Your task to perform on an android device: toggle notification dots Image 0: 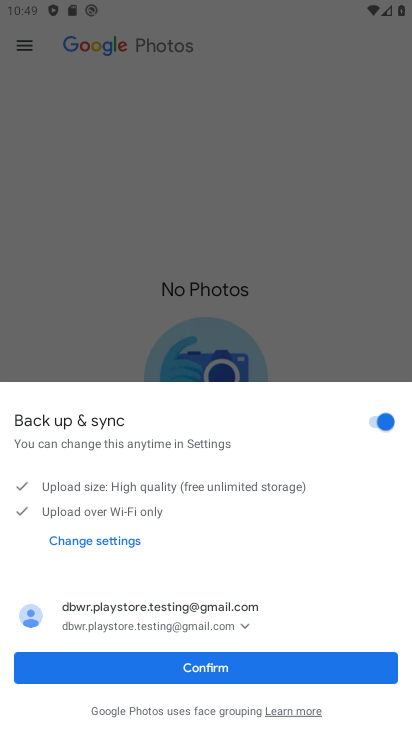
Step 0: press home button
Your task to perform on an android device: toggle notification dots Image 1: 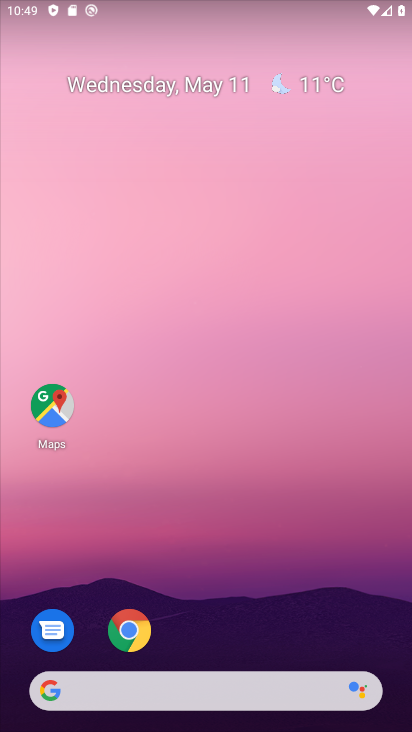
Step 1: drag from (220, 656) to (252, 332)
Your task to perform on an android device: toggle notification dots Image 2: 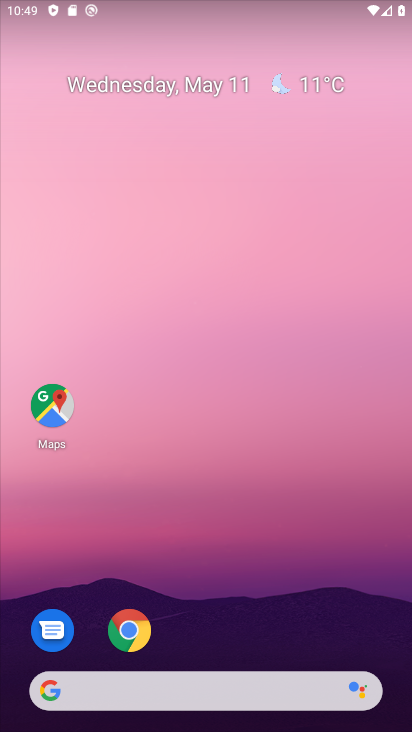
Step 2: drag from (229, 630) to (242, 312)
Your task to perform on an android device: toggle notification dots Image 3: 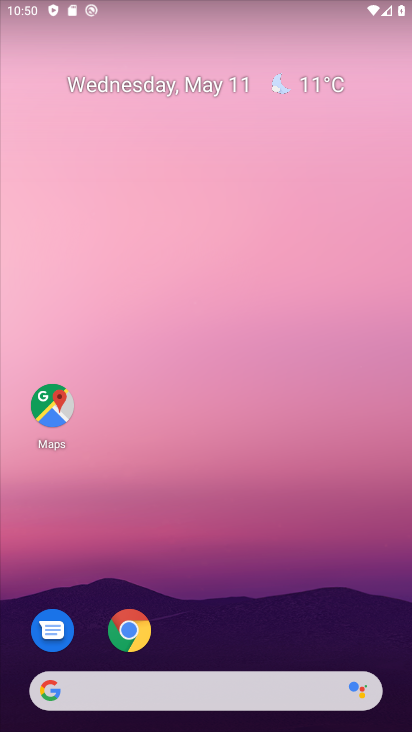
Step 3: drag from (223, 658) to (238, 259)
Your task to perform on an android device: toggle notification dots Image 4: 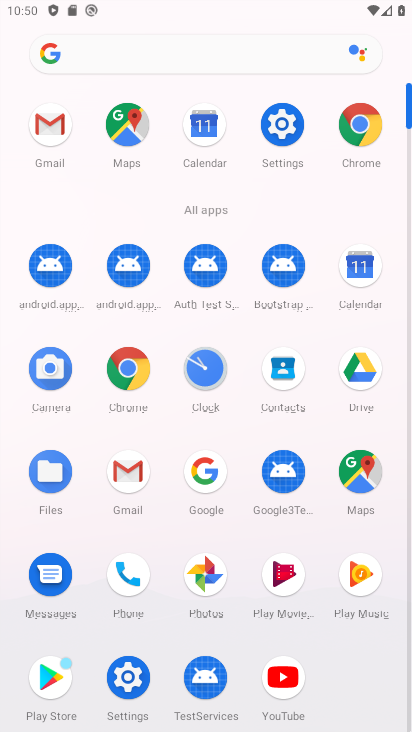
Step 4: click (284, 142)
Your task to perform on an android device: toggle notification dots Image 5: 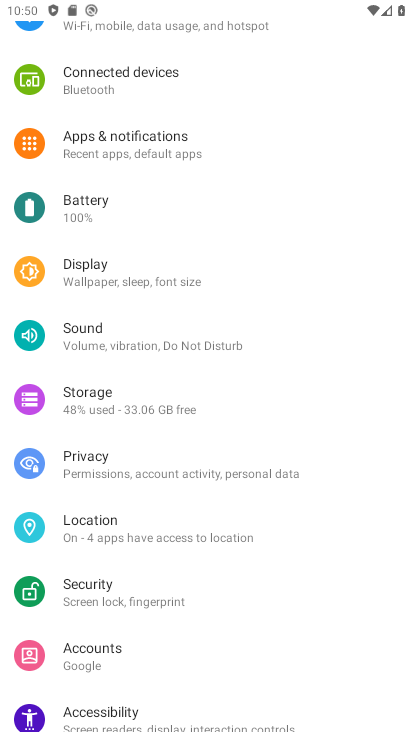
Step 5: click (171, 159)
Your task to perform on an android device: toggle notification dots Image 6: 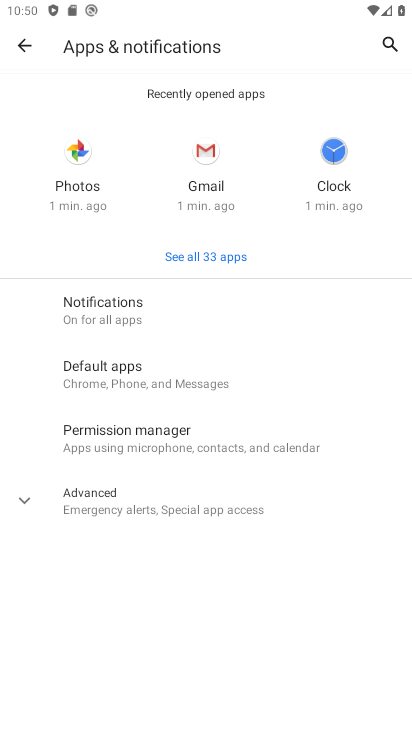
Step 6: click (130, 307)
Your task to perform on an android device: toggle notification dots Image 7: 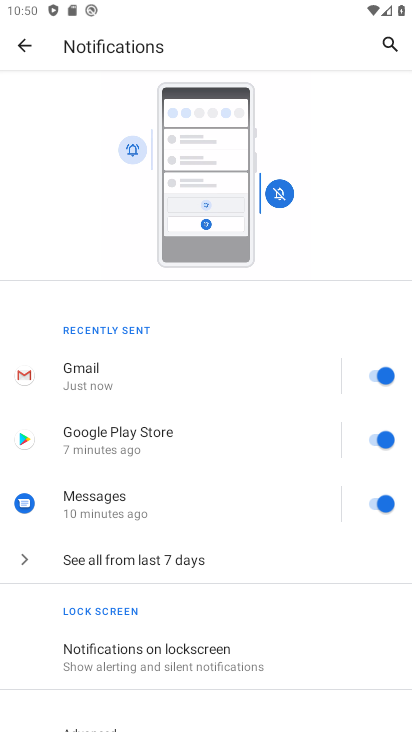
Step 7: drag from (164, 642) to (168, 267)
Your task to perform on an android device: toggle notification dots Image 8: 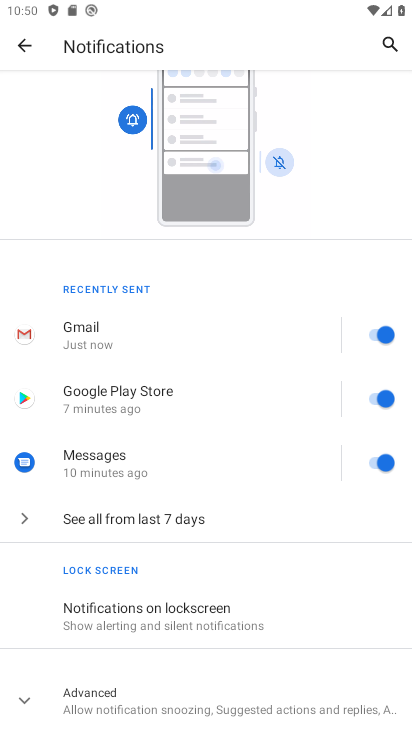
Step 8: click (19, 694)
Your task to perform on an android device: toggle notification dots Image 9: 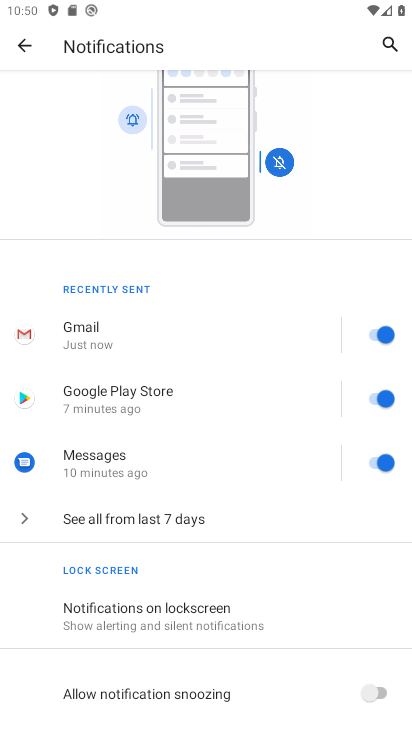
Step 9: drag from (224, 645) to (303, 385)
Your task to perform on an android device: toggle notification dots Image 10: 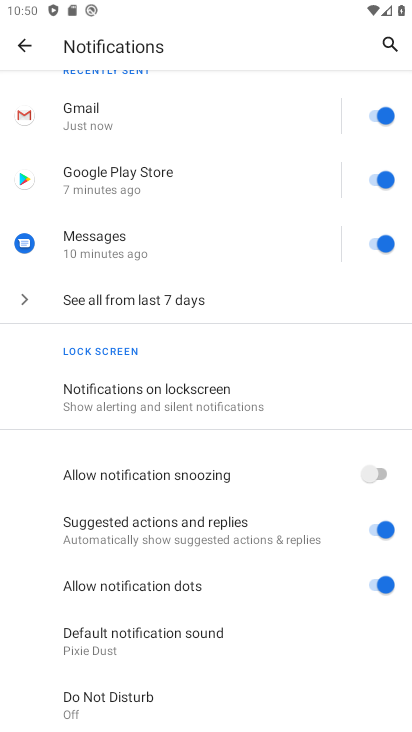
Step 10: click (374, 582)
Your task to perform on an android device: toggle notification dots Image 11: 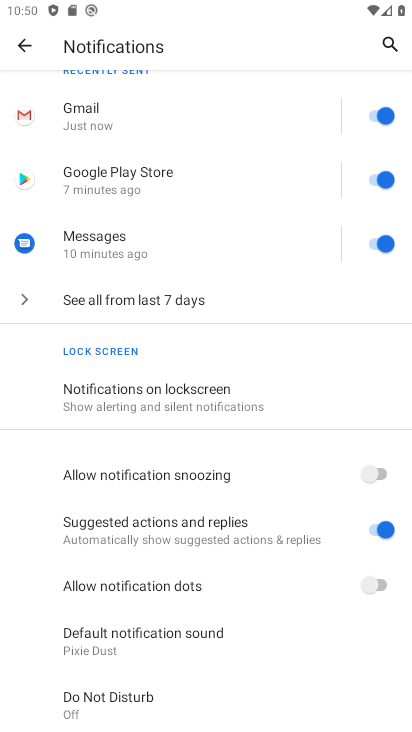
Step 11: task complete